Your task to perform on an android device: choose inbox layout in the gmail app Image 0: 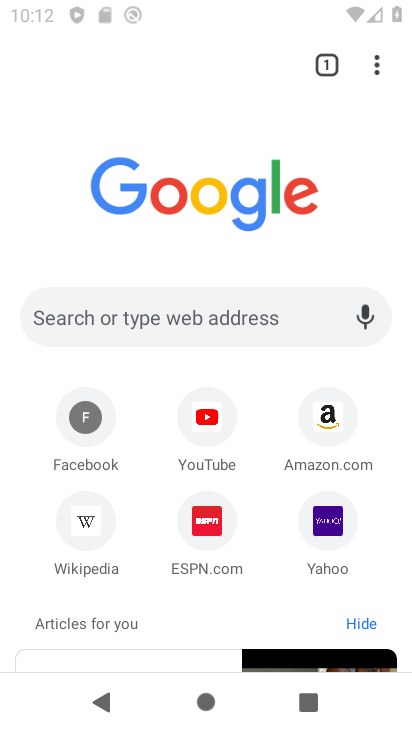
Step 0: drag from (208, 572) to (237, 99)
Your task to perform on an android device: choose inbox layout in the gmail app Image 1: 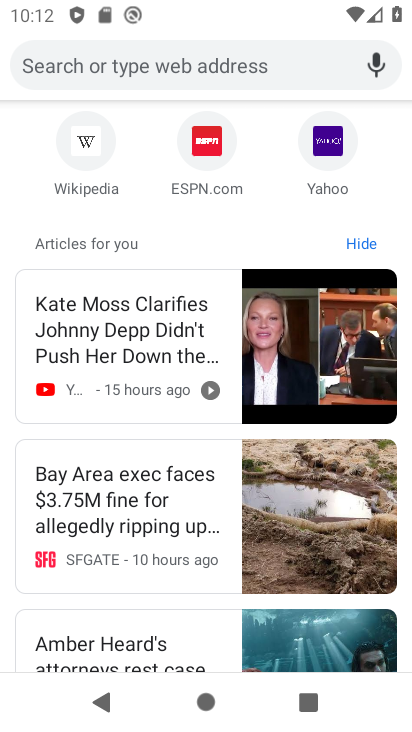
Step 1: press home button
Your task to perform on an android device: choose inbox layout in the gmail app Image 2: 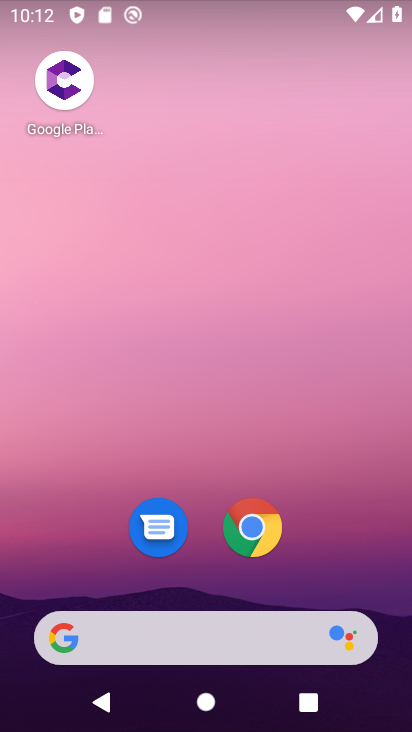
Step 2: drag from (212, 572) to (309, 91)
Your task to perform on an android device: choose inbox layout in the gmail app Image 3: 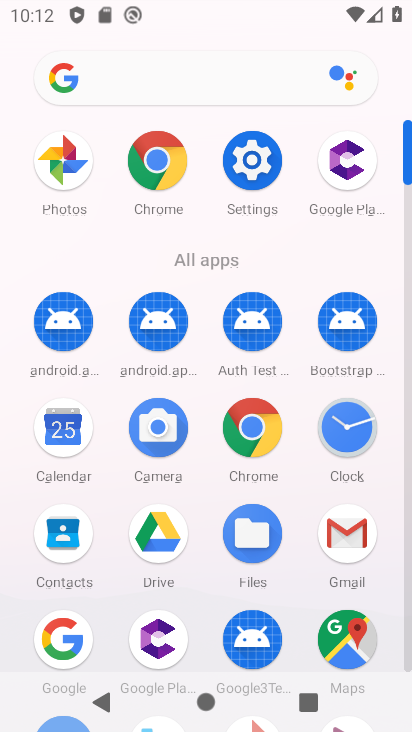
Step 3: click (350, 545)
Your task to perform on an android device: choose inbox layout in the gmail app Image 4: 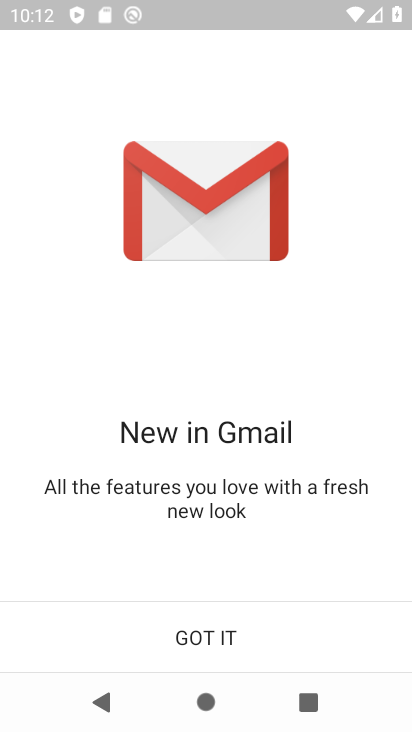
Step 4: click (233, 647)
Your task to perform on an android device: choose inbox layout in the gmail app Image 5: 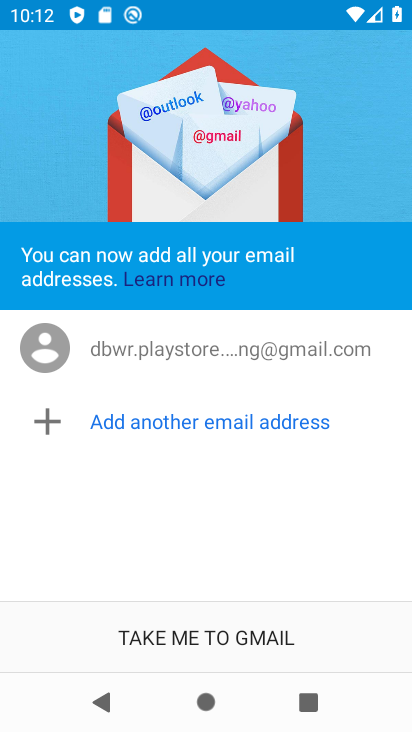
Step 5: click (136, 640)
Your task to perform on an android device: choose inbox layout in the gmail app Image 6: 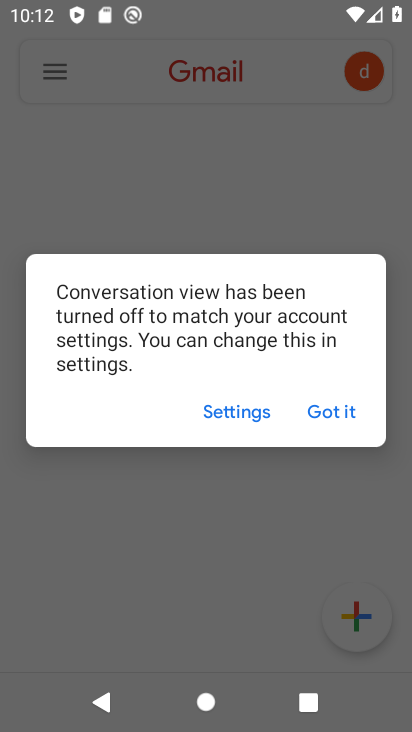
Step 6: click (349, 418)
Your task to perform on an android device: choose inbox layout in the gmail app Image 7: 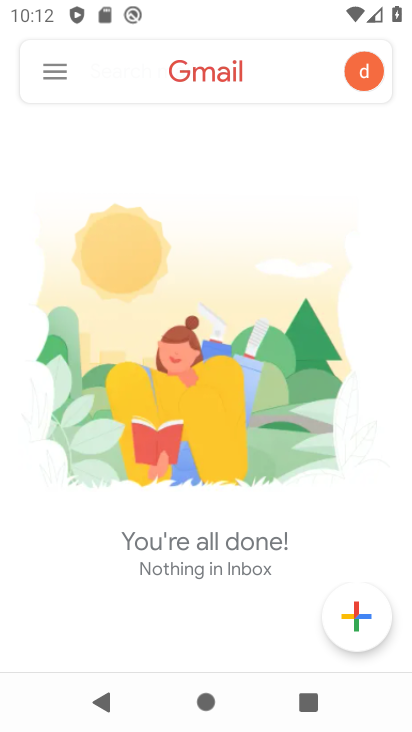
Step 7: click (35, 65)
Your task to perform on an android device: choose inbox layout in the gmail app Image 8: 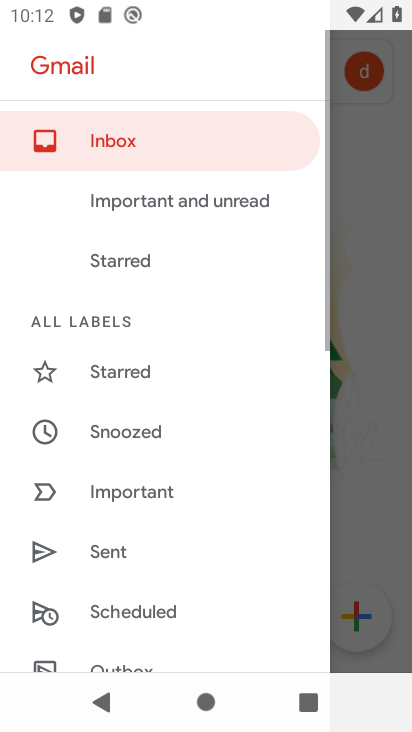
Step 8: drag from (64, 645) to (151, 124)
Your task to perform on an android device: choose inbox layout in the gmail app Image 9: 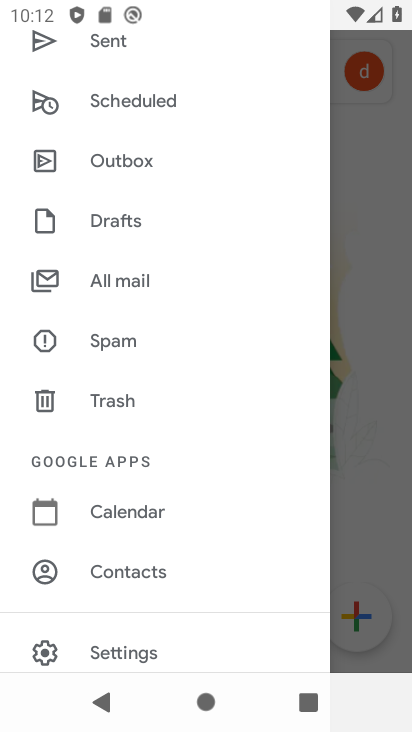
Step 9: click (110, 663)
Your task to perform on an android device: choose inbox layout in the gmail app Image 10: 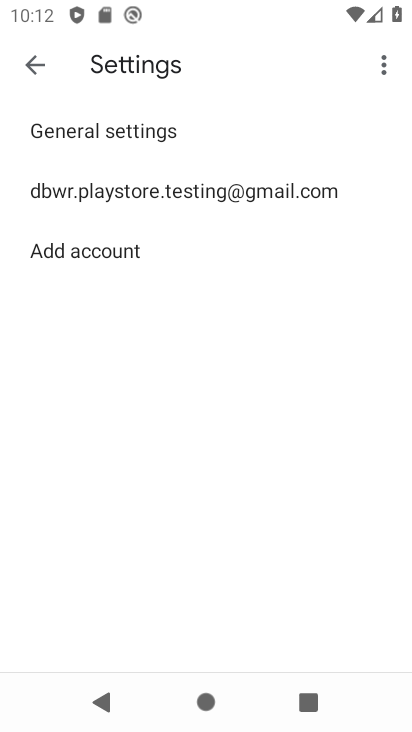
Step 10: click (159, 190)
Your task to perform on an android device: choose inbox layout in the gmail app Image 11: 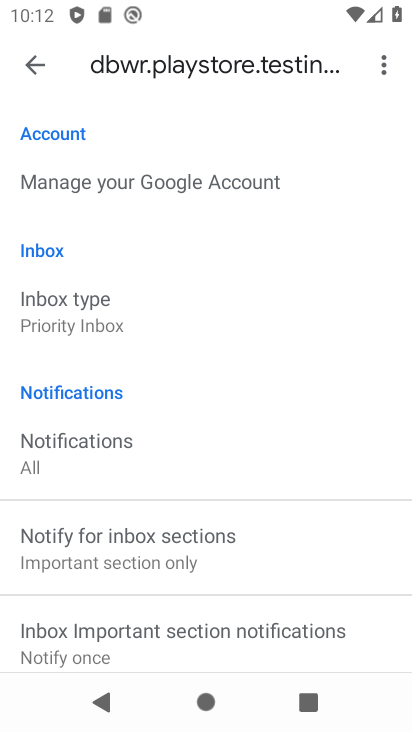
Step 11: click (129, 295)
Your task to perform on an android device: choose inbox layout in the gmail app Image 12: 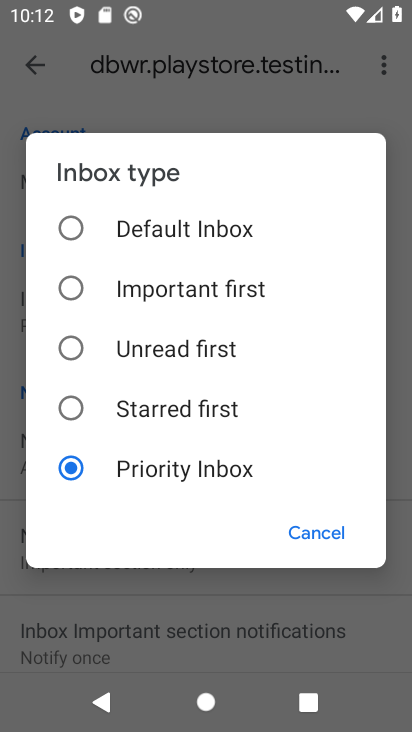
Step 12: click (169, 401)
Your task to perform on an android device: choose inbox layout in the gmail app Image 13: 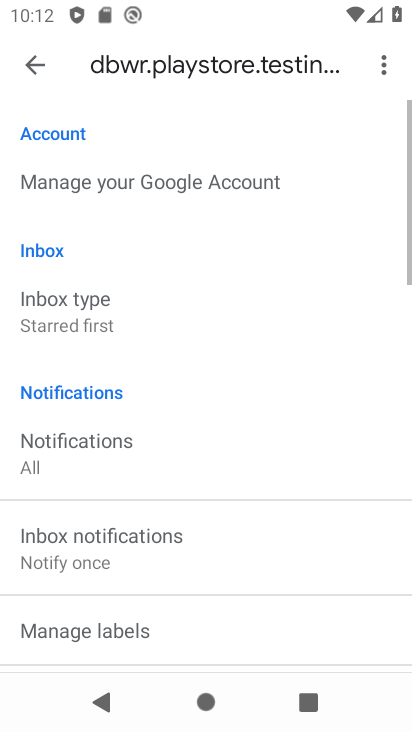
Step 13: task complete